Your task to perform on an android device: turn notification dots on Image 0: 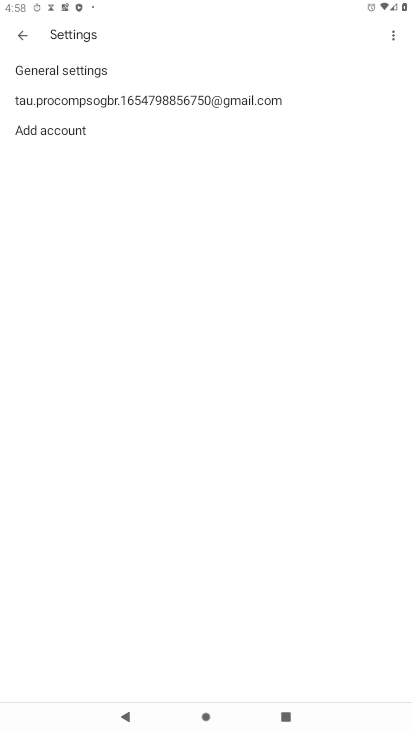
Step 0: press home button
Your task to perform on an android device: turn notification dots on Image 1: 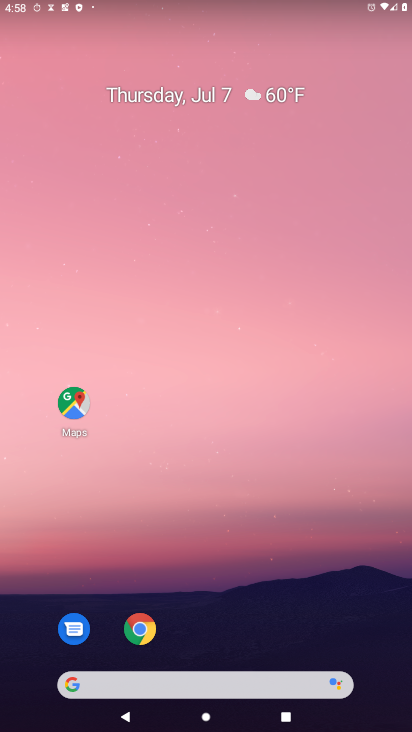
Step 1: drag from (205, 658) to (309, 0)
Your task to perform on an android device: turn notification dots on Image 2: 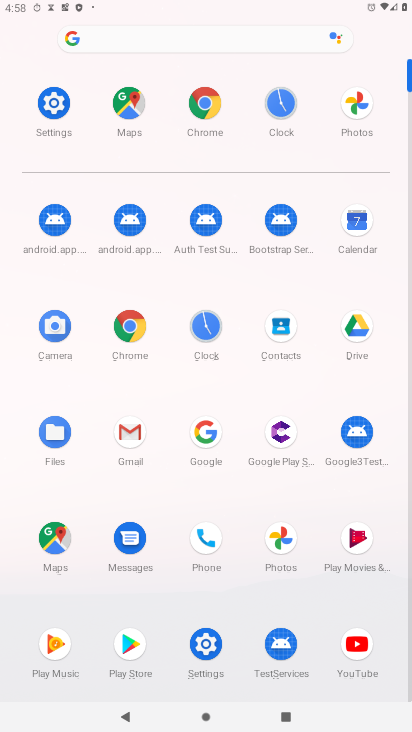
Step 2: click (56, 118)
Your task to perform on an android device: turn notification dots on Image 3: 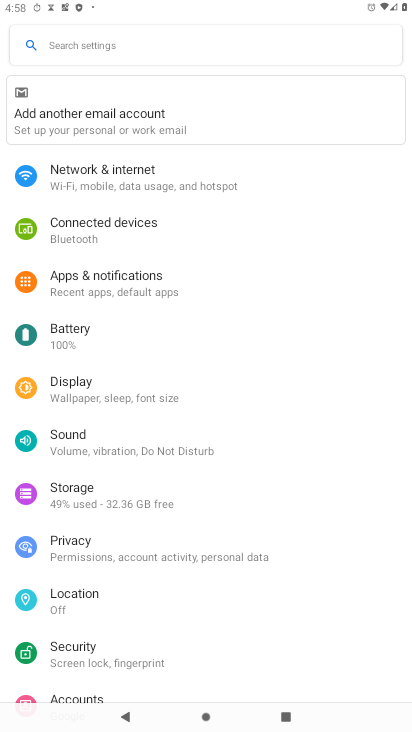
Step 3: click (96, 278)
Your task to perform on an android device: turn notification dots on Image 4: 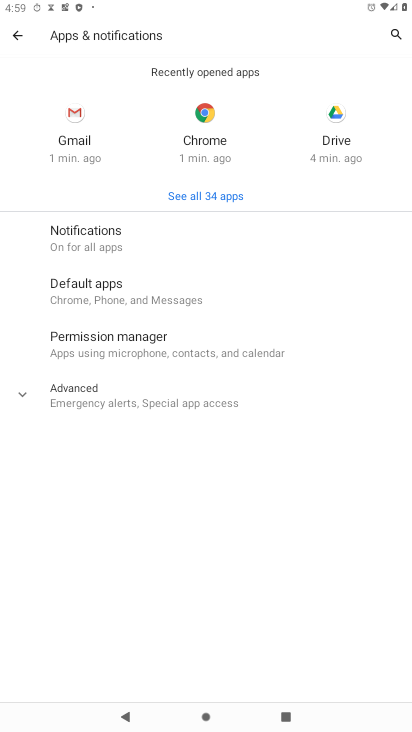
Step 4: click (95, 236)
Your task to perform on an android device: turn notification dots on Image 5: 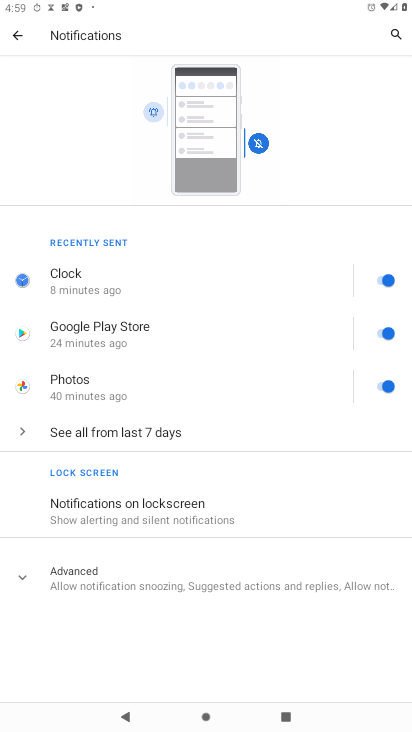
Step 5: click (118, 501)
Your task to perform on an android device: turn notification dots on Image 6: 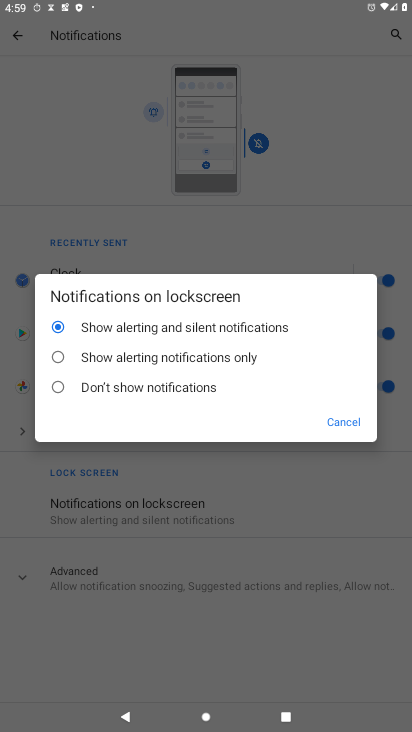
Step 6: click (357, 426)
Your task to perform on an android device: turn notification dots on Image 7: 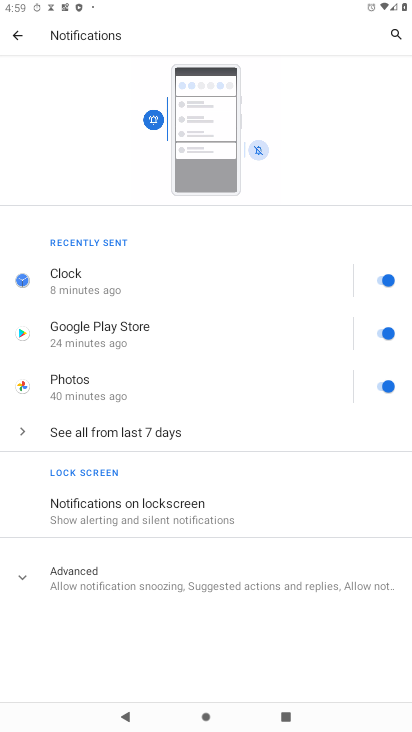
Step 7: click (66, 576)
Your task to perform on an android device: turn notification dots on Image 8: 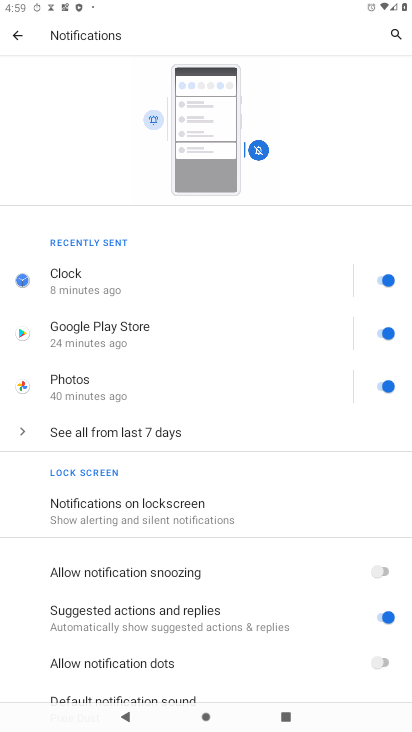
Step 8: click (379, 659)
Your task to perform on an android device: turn notification dots on Image 9: 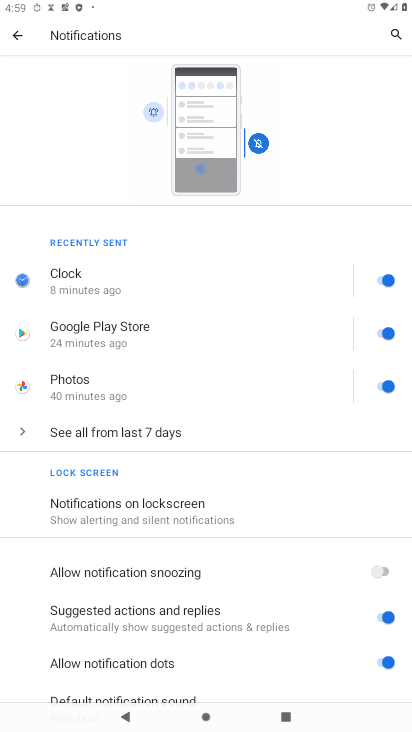
Step 9: task complete